Your task to perform on an android device: Go to accessibility settings Image 0: 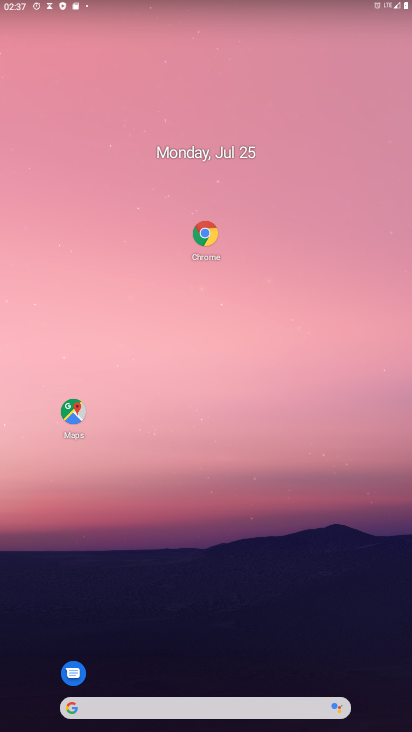
Step 0: drag from (227, 686) to (259, 47)
Your task to perform on an android device: Go to accessibility settings Image 1: 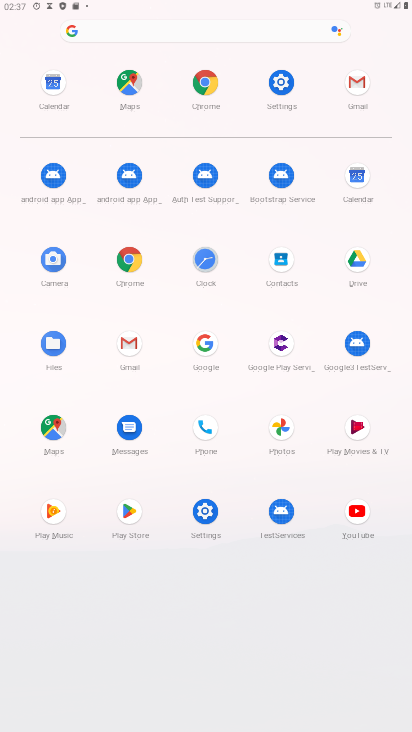
Step 1: click (288, 79)
Your task to perform on an android device: Go to accessibility settings Image 2: 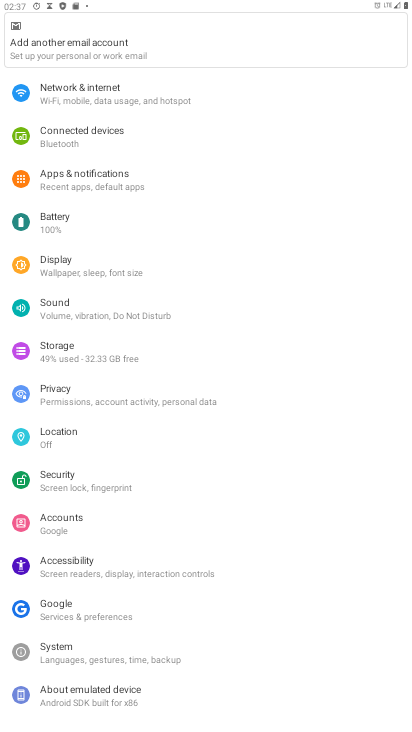
Step 2: click (97, 561)
Your task to perform on an android device: Go to accessibility settings Image 3: 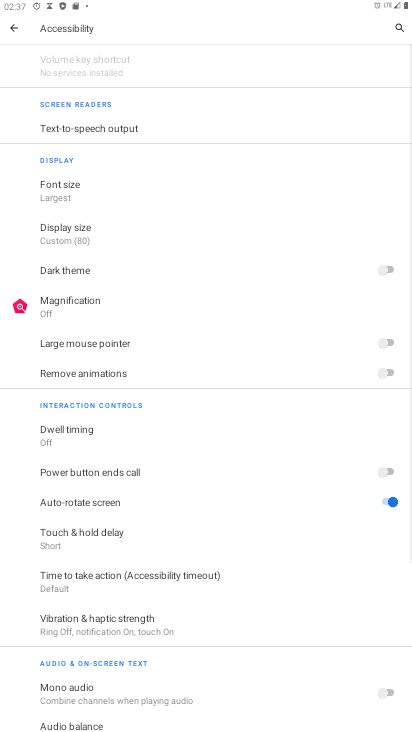
Step 3: task complete